Your task to perform on an android device: toggle notification dots Image 0: 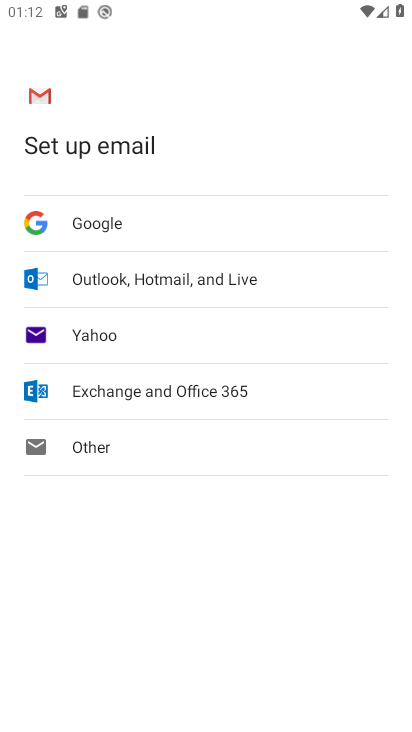
Step 0: press home button
Your task to perform on an android device: toggle notification dots Image 1: 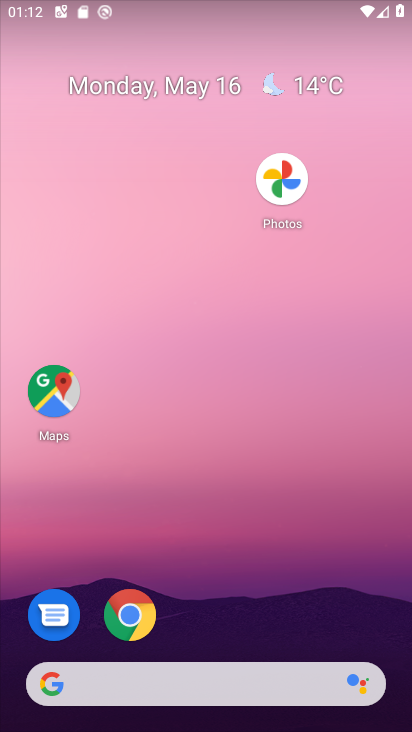
Step 1: drag from (313, 614) to (398, 118)
Your task to perform on an android device: toggle notification dots Image 2: 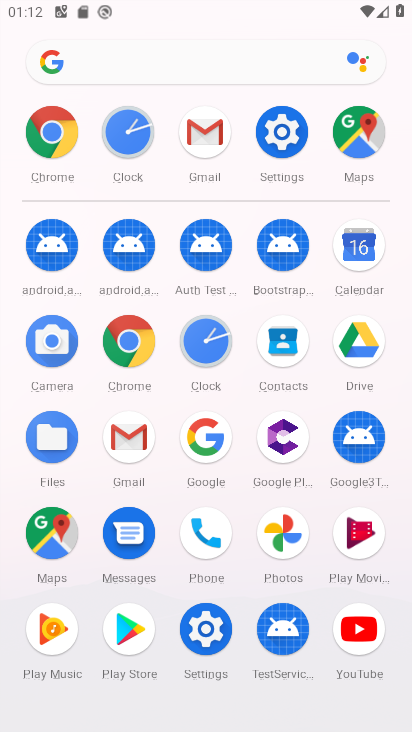
Step 2: click (197, 637)
Your task to perform on an android device: toggle notification dots Image 3: 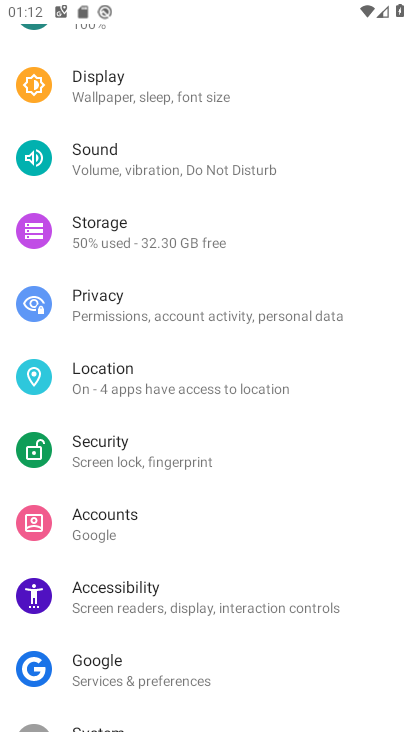
Step 3: drag from (196, 87) to (234, 560)
Your task to perform on an android device: toggle notification dots Image 4: 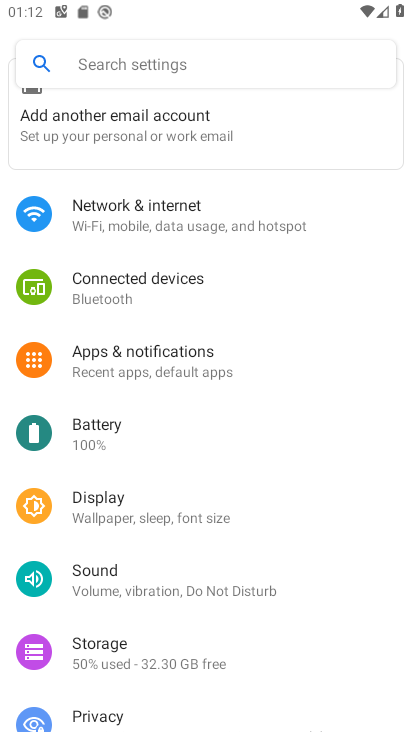
Step 4: click (196, 366)
Your task to perform on an android device: toggle notification dots Image 5: 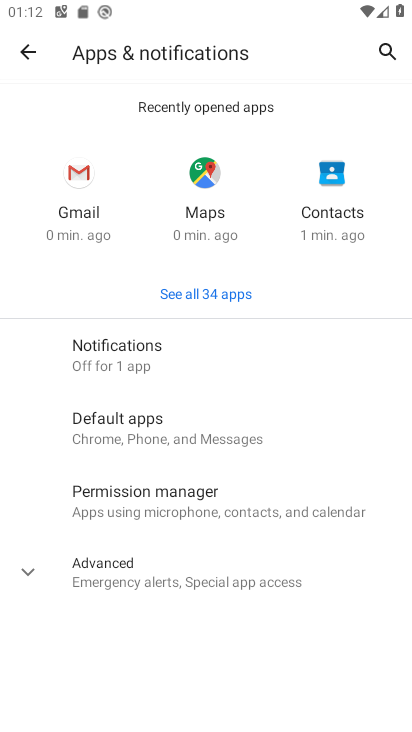
Step 5: click (157, 358)
Your task to perform on an android device: toggle notification dots Image 6: 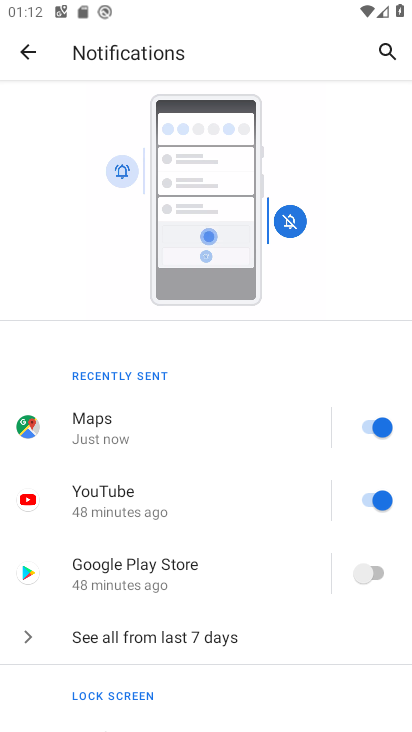
Step 6: drag from (251, 688) to (288, 325)
Your task to perform on an android device: toggle notification dots Image 7: 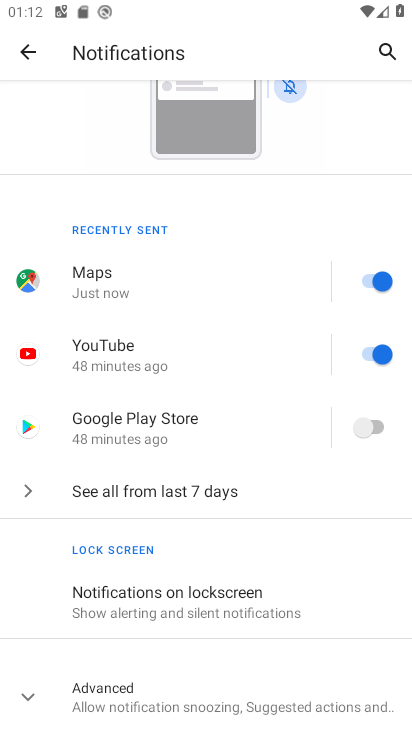
Step 7: click (201, 698)
Your task to perform on an android device: toggle notification dots Image 8: 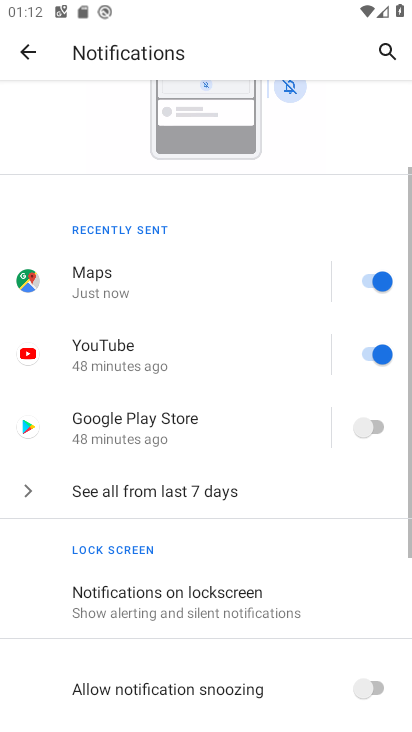
Step 8: drag from (299, 691) to (307, 292)
Your task to perform on an android device: toggle notification dots Image 9: 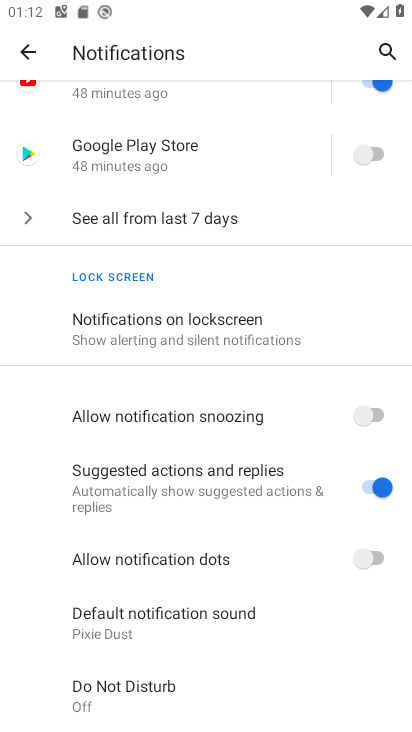
Step 9: drag from (306, 602) to (295, 357)
Your task to perform on an android device: toggle notification dots Image 10: 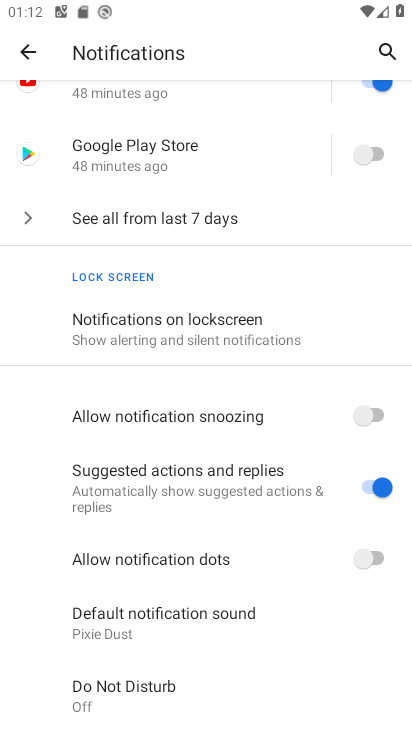
Step 10: click (384, 560)
Your task to perform on an android device: toggle notification dots Image 11: 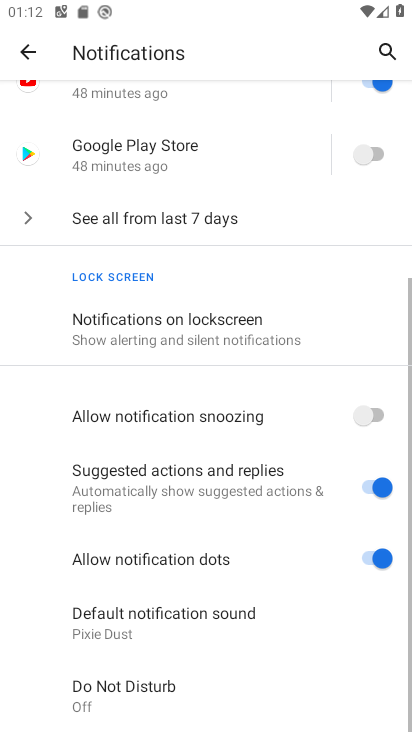
Step 11: task complete